Your task to perform on an android device: Go to network settings Image 0: 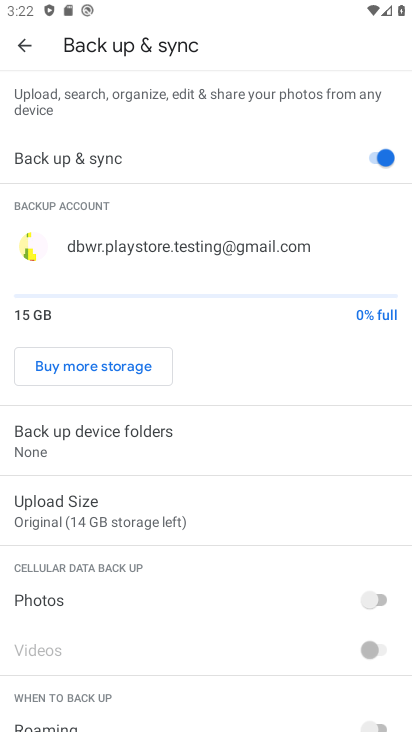
Step 0: press home button
Your task to perform on an android device: Go to network settings Image 1: 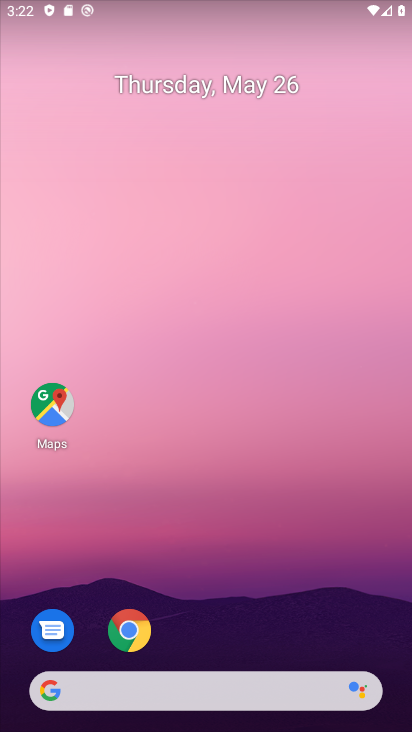
Step 1: drag from (238, 606) to (247, 219)
Your task to perform on an android device: Go to network settings Image 2: 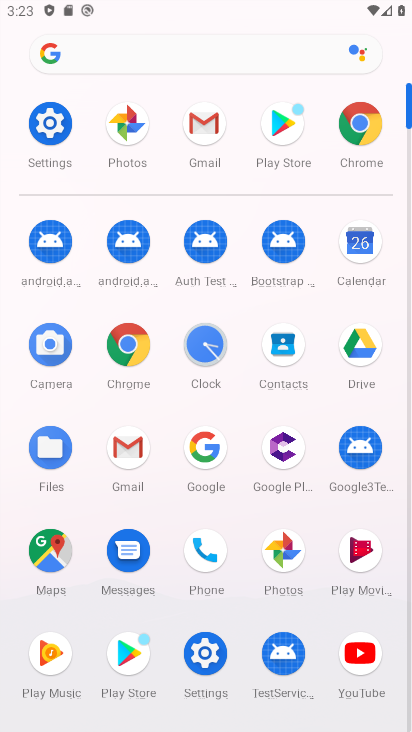
Step 2: click (48, 122)
Your task to perform on an android device: Go to network settings Image 3: 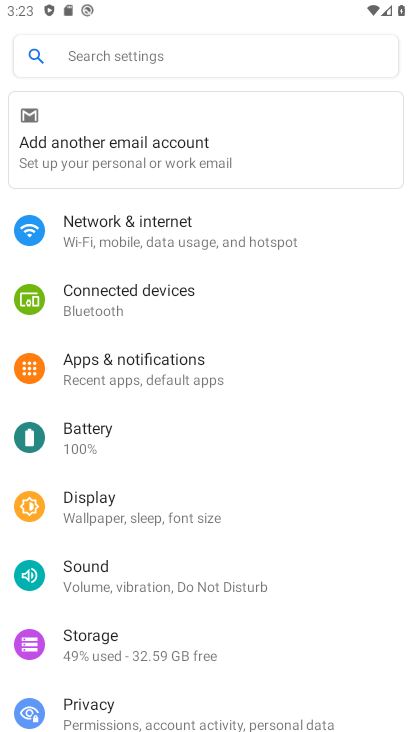
Step 3: click (115, 236)
Your task to perform on an android device: Go to network settings Image 4: 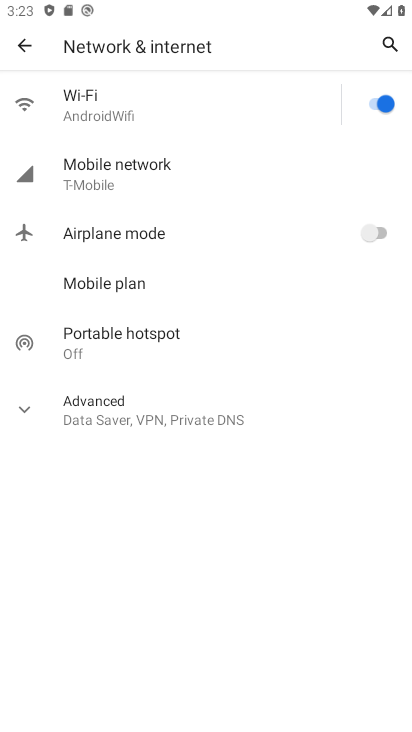
Step 4: click (114, 106)
Your task to perform on an android device: Go to network settings Image 5: 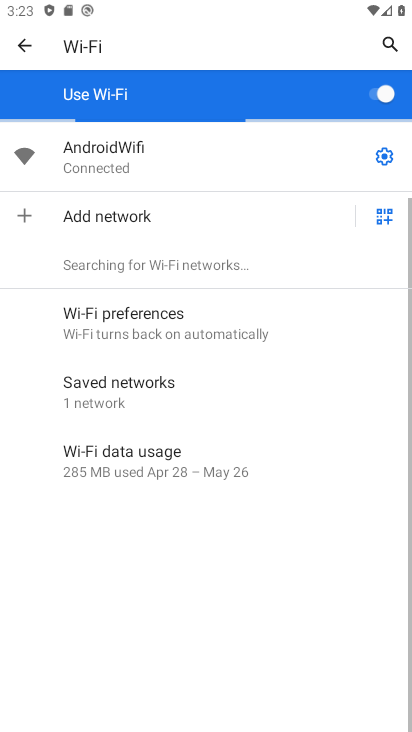
Step 5: click (387, 158)
Your task to perform on an android device: Go to network settings Image 6: 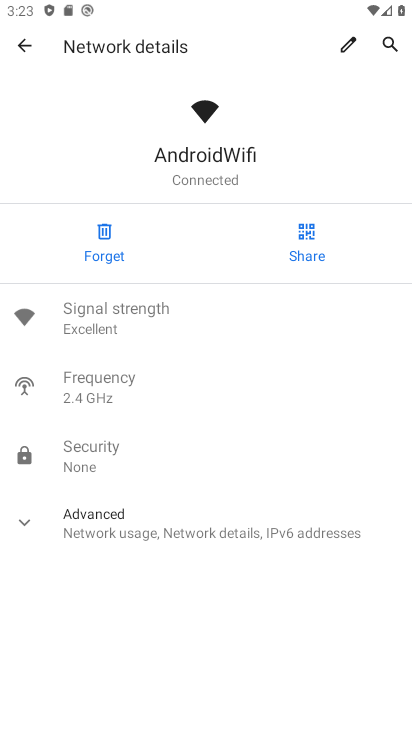
Step 6: task complete